Your task to perform on an android device: Open Youtube and go to the subscriptions tab Image 0: 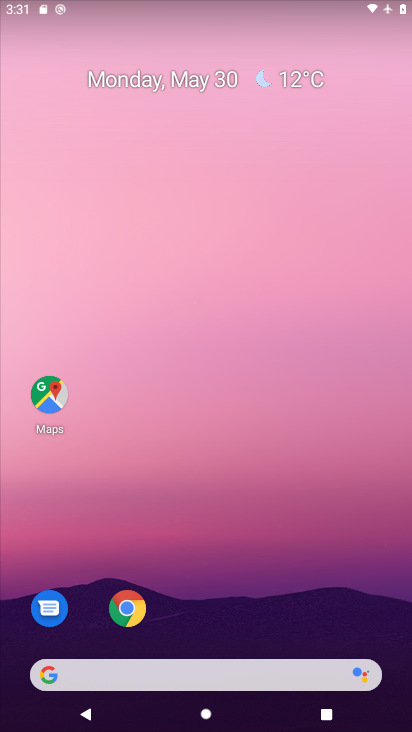
Step 0: drag from (279, 478) to (166, 22)
Your task to perform on an android device: Open Youtube and go to the subscriptions tab Image 1: 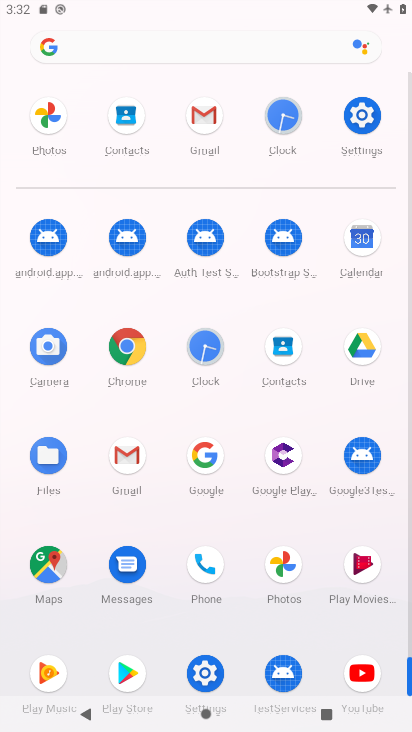
Step 1: click (368, 673)
Your task to perform on an android device: Open Youtube and go to the subscriptions tab Image 2: 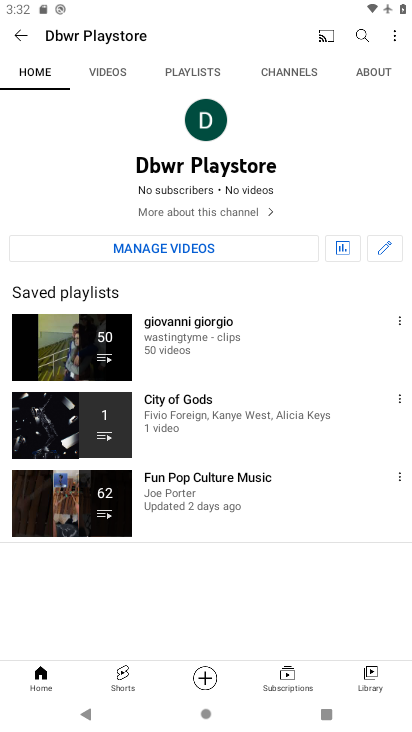
Step 2: click (297, 686)
Your task to perform on an android device: Open Youtube and go to the subscriptions tab Image 3: 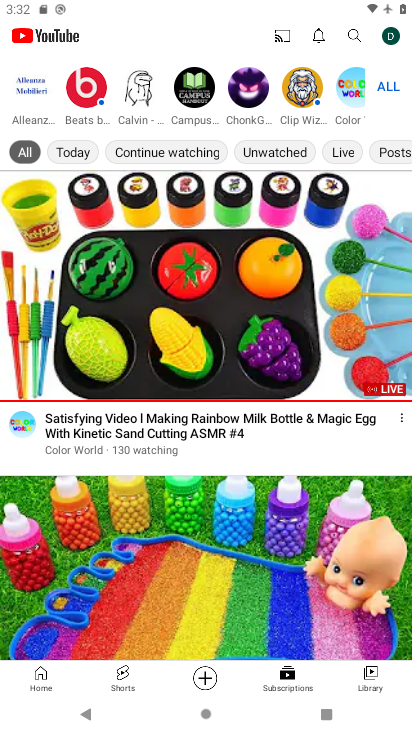
Step 3: task complete